Your task to perform on an android device: turn off notifications in google photos Image 0: 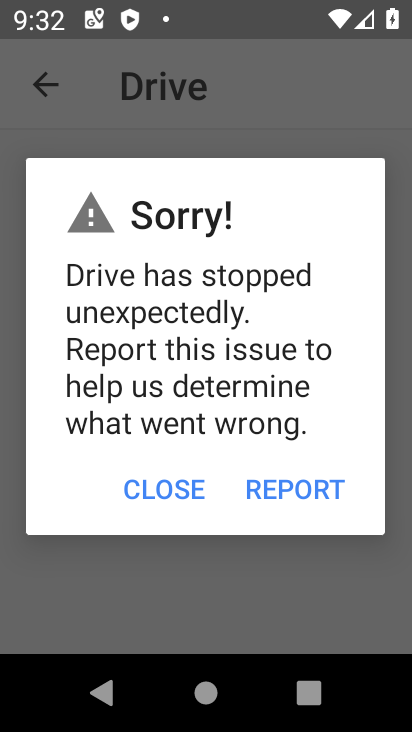
Step 0: press home button
Your task to perform on an android device: turn off notifications in google photos Image 1: 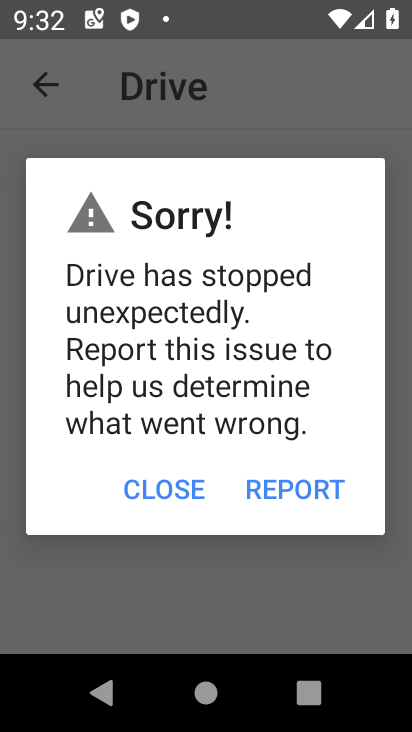
Step 1: press home button
Your task to perform on an android device: turn off notifications in google photos Image 2: 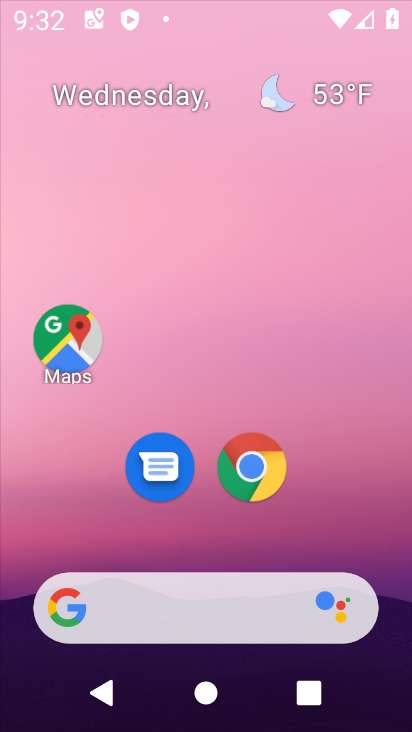
Step 2: press home button
Your task to perform on an android device: turn off notifications in google photos Image 3: 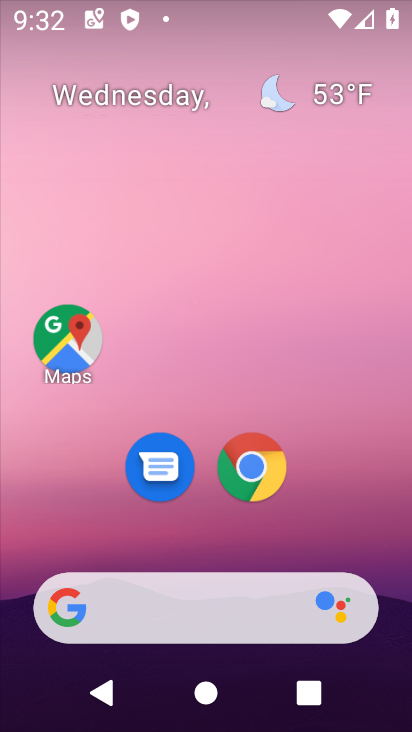
Step 3: press home button
Your task to perform on an android device: turn off notifications in google photos Image 4: 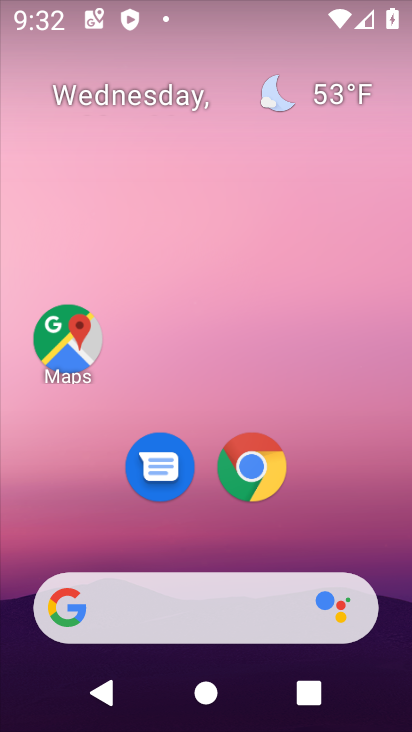
Step 4: drag from (370, 499) to (325, 5)
Your task to perform on an android device: turn off notifications in google photos Image 5: 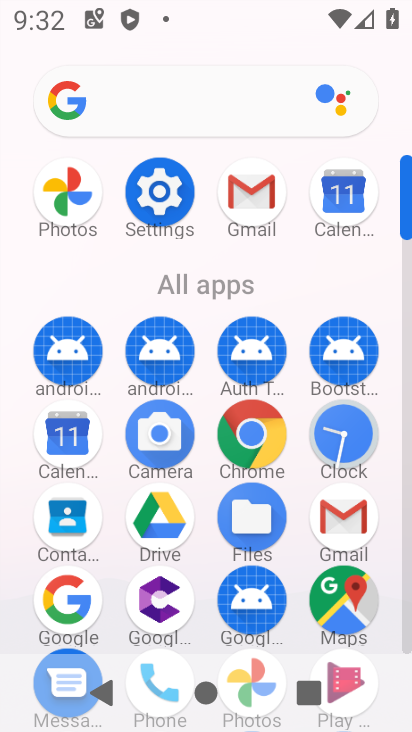
Step 5: click (68, 189)
Your task to perform on an android device: turn off notifications in google photos Image 6: 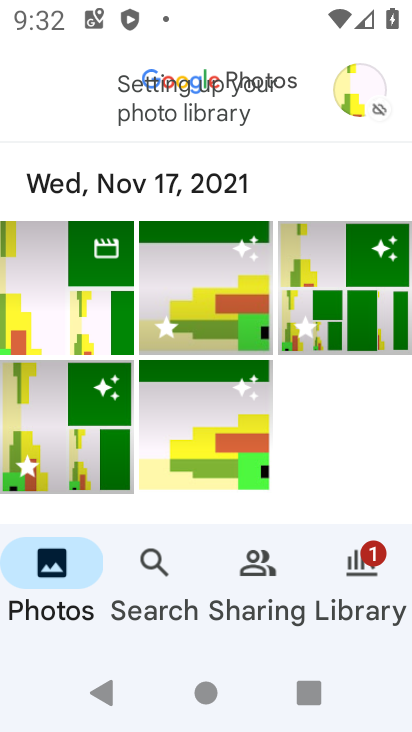
Step 6: press back button
Your task to perform on an android device: turn off notifications in google photos Image 7: 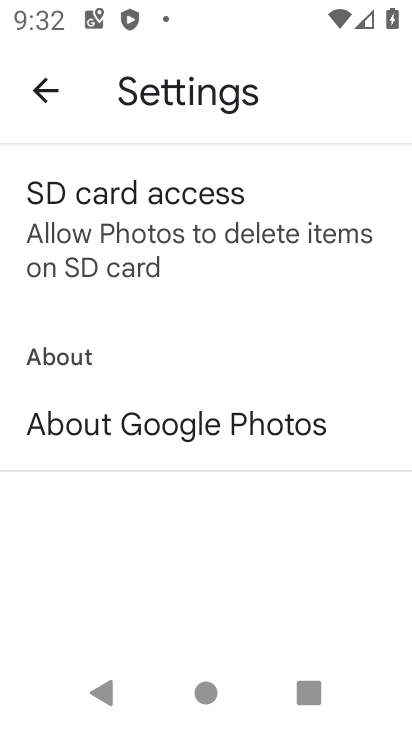
Step 7: press home button
Your task to perform on an android device: turn off notifications in google photos Image 8: 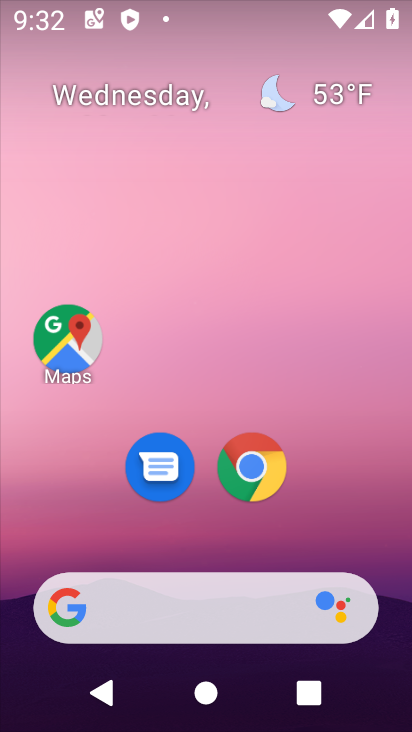
Step 8: drag from (387, 495) to (411, 41)
Your task to perform on an android device: turn off notifications in google photos Image 9: 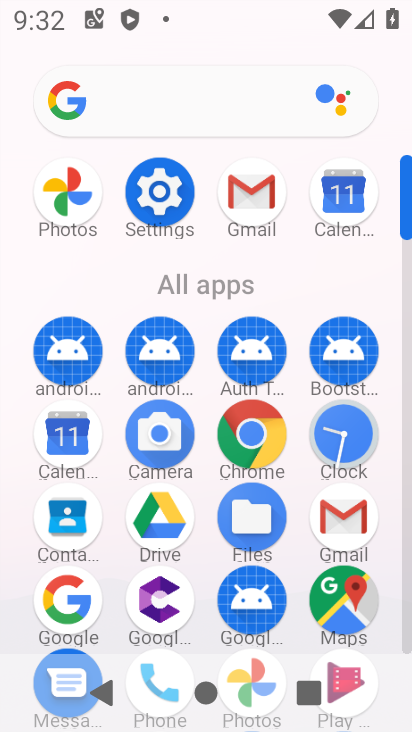
Step 9: click (69, 189)
Your task to perform on an android device: turn off notifications in google photos Image 10: 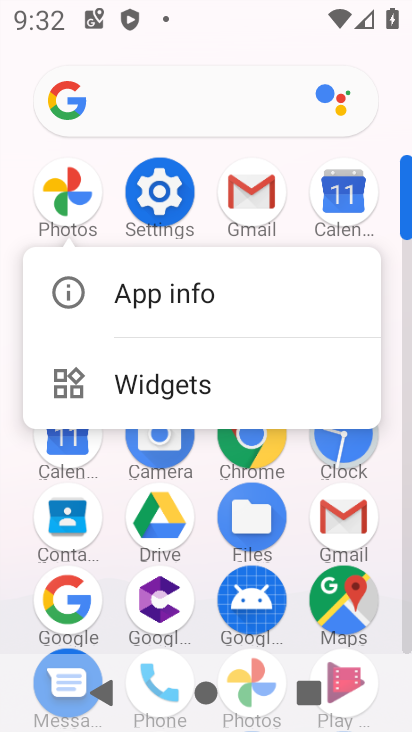
Step 10: click (181, 293)
Your task to perform on an android device: turn off notifications in google photos Image 11: 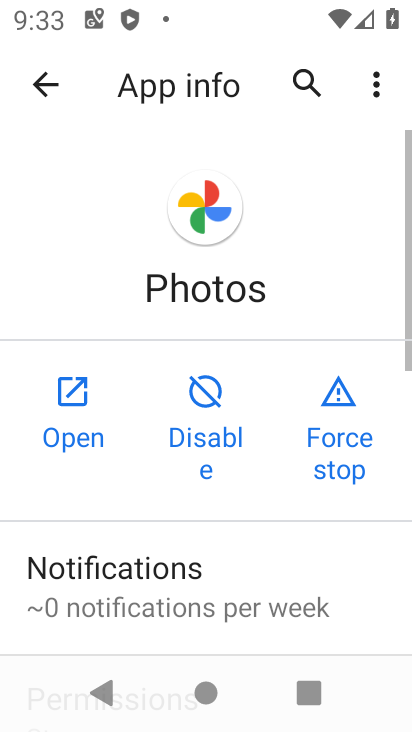
Step 11: click (174, 590)
Your task to perform on an android device: turn off notifications in google photos Image 12: 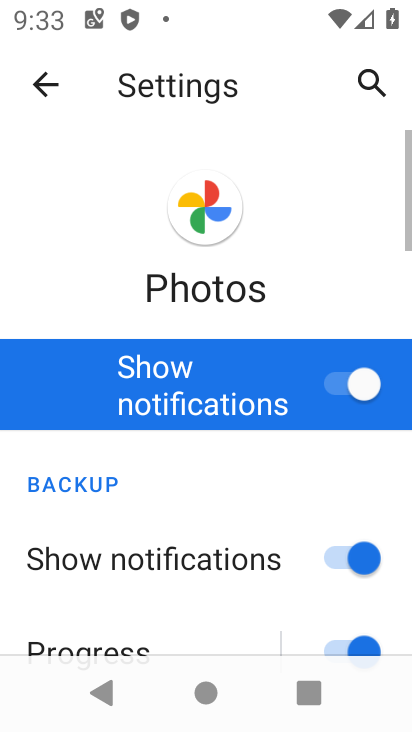
Step 12: click (349, 387)
Your task to perform on an android device: turn off notifications in google photos Image 13: 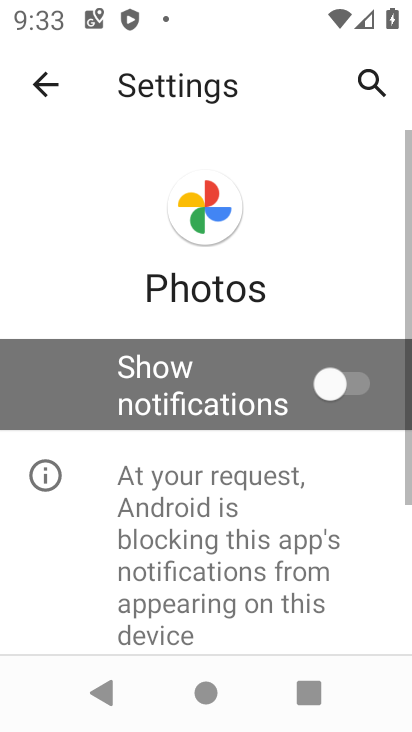
Step 13: task complete